Your task to perform on an android device: turn on data saver in the chrome app Image 0: 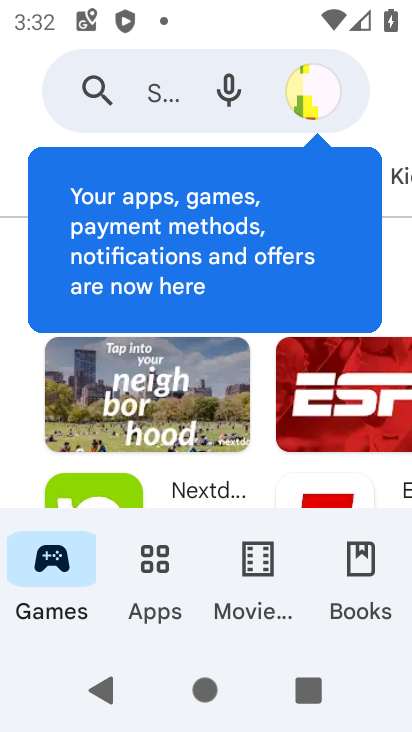
Step 0: task complete